Your task to perform on an android device: Open wifi settings Image 0: 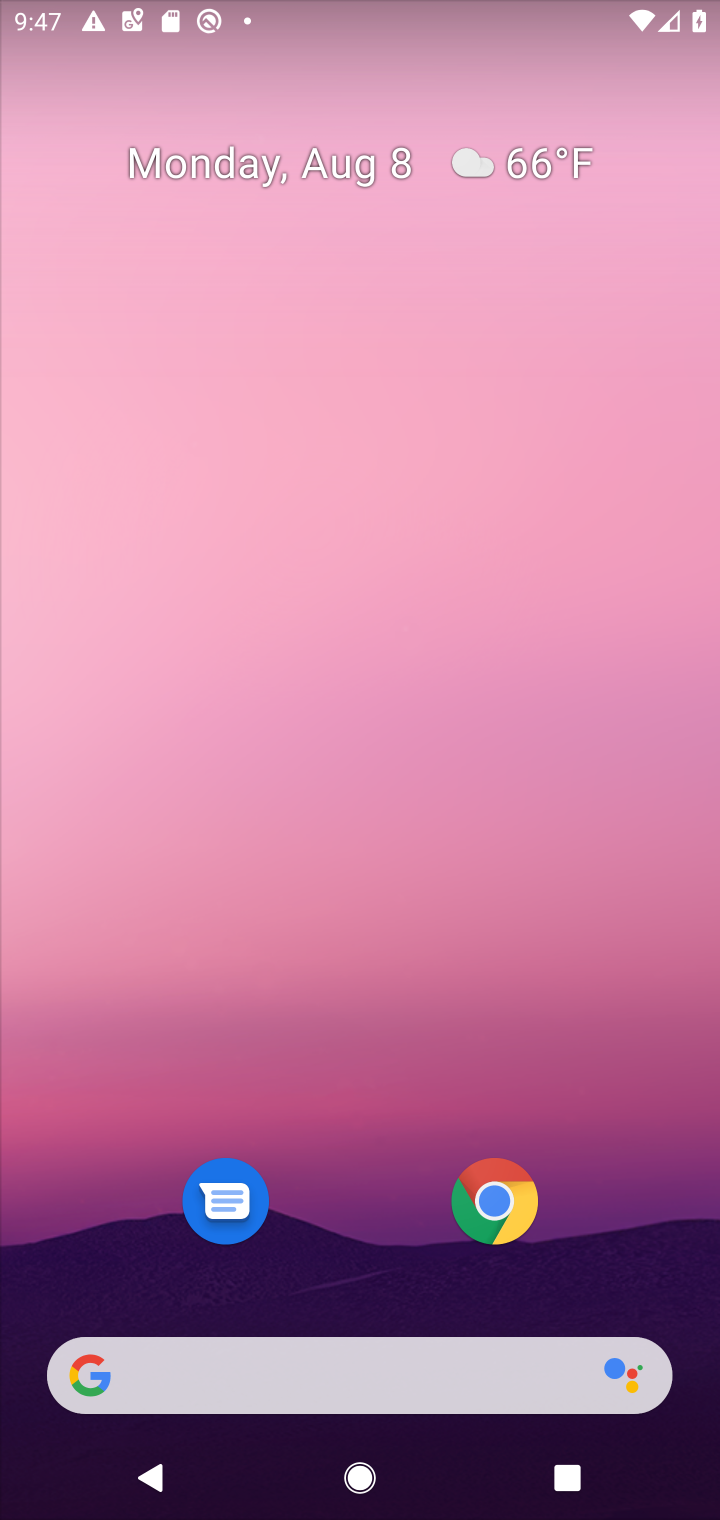
Step 0: press home button
Your task to perform on an android device: Open wifi settings Image 1: 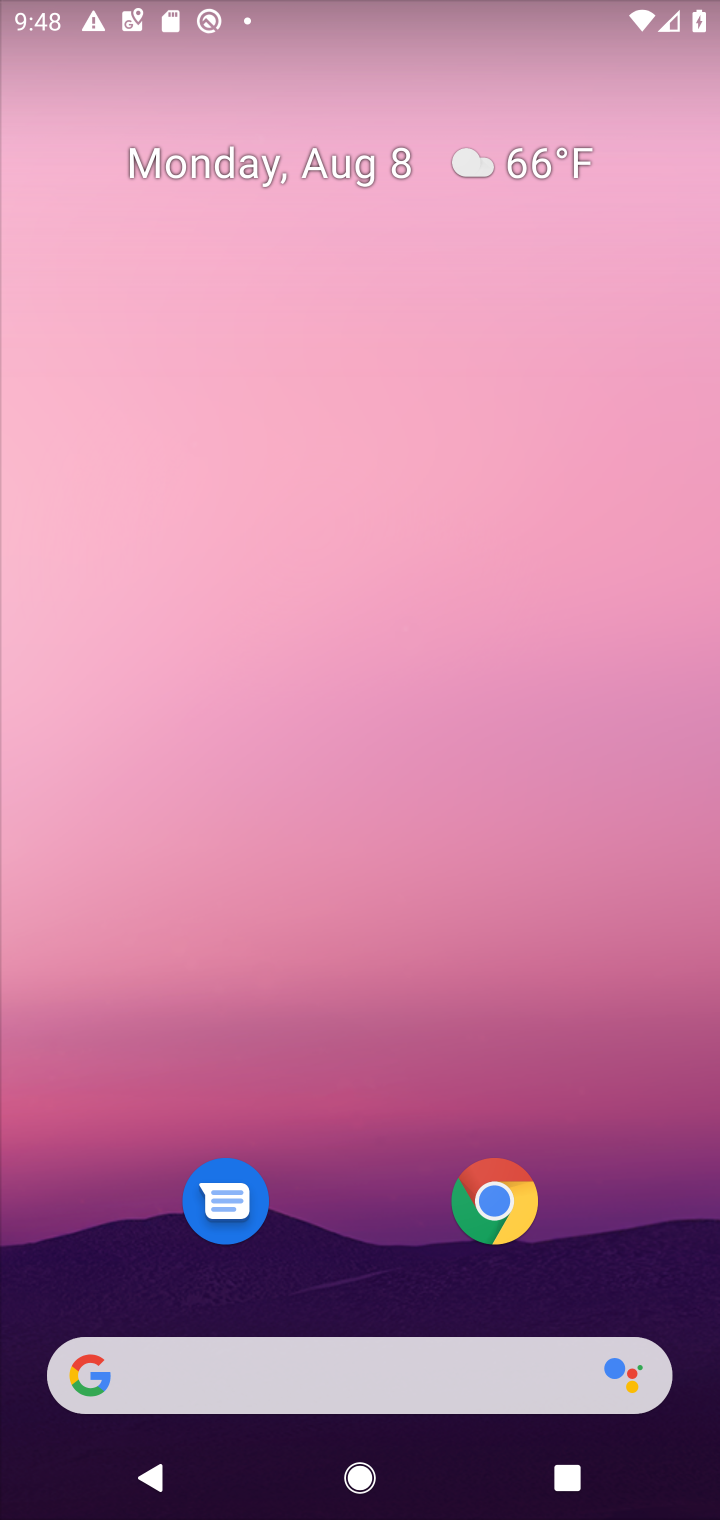
Step 1: drag from (366, 939) to (391, 279)
Your task to perform on an android device: Open wifi settings Image 2: 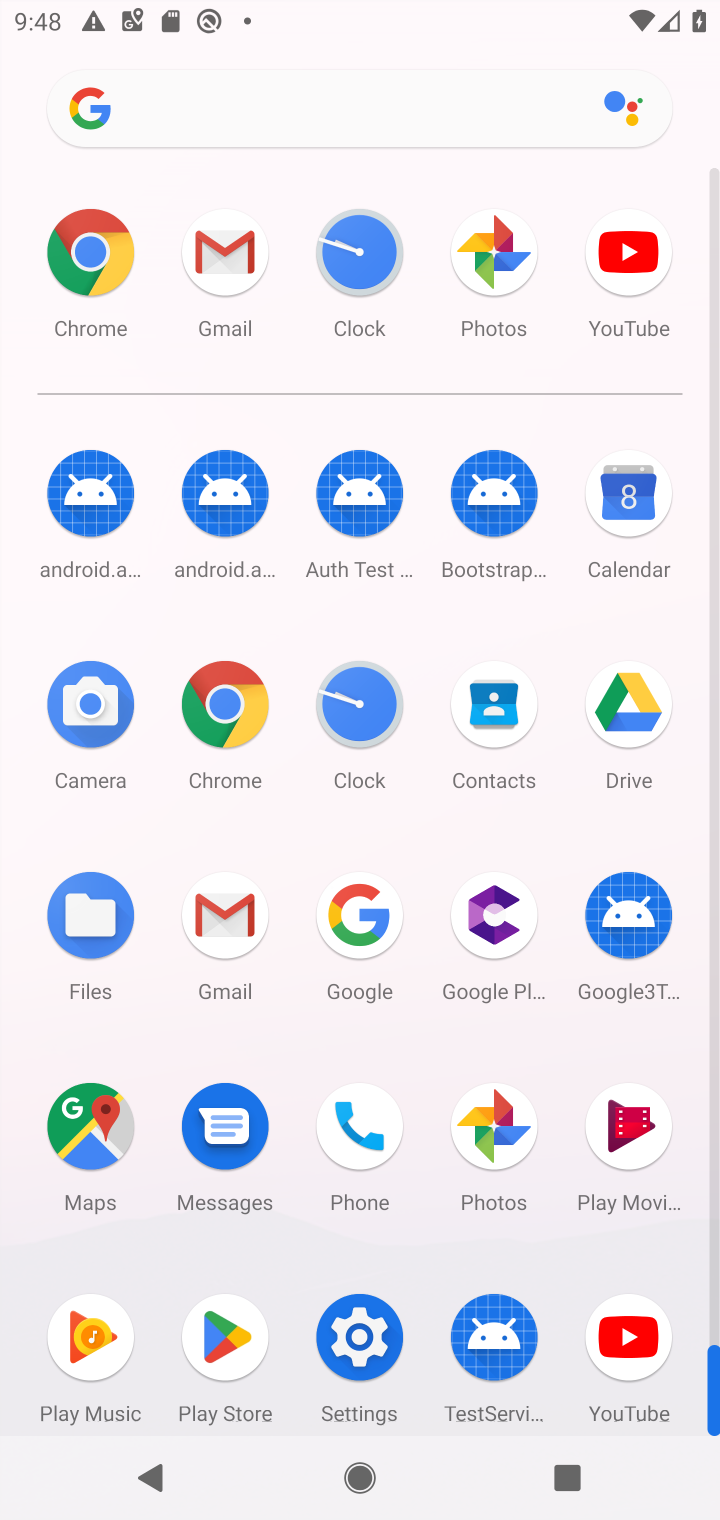
Step 2: click (367, 1347)
Your task to perform on an android device: Open wifi settings Image 3: 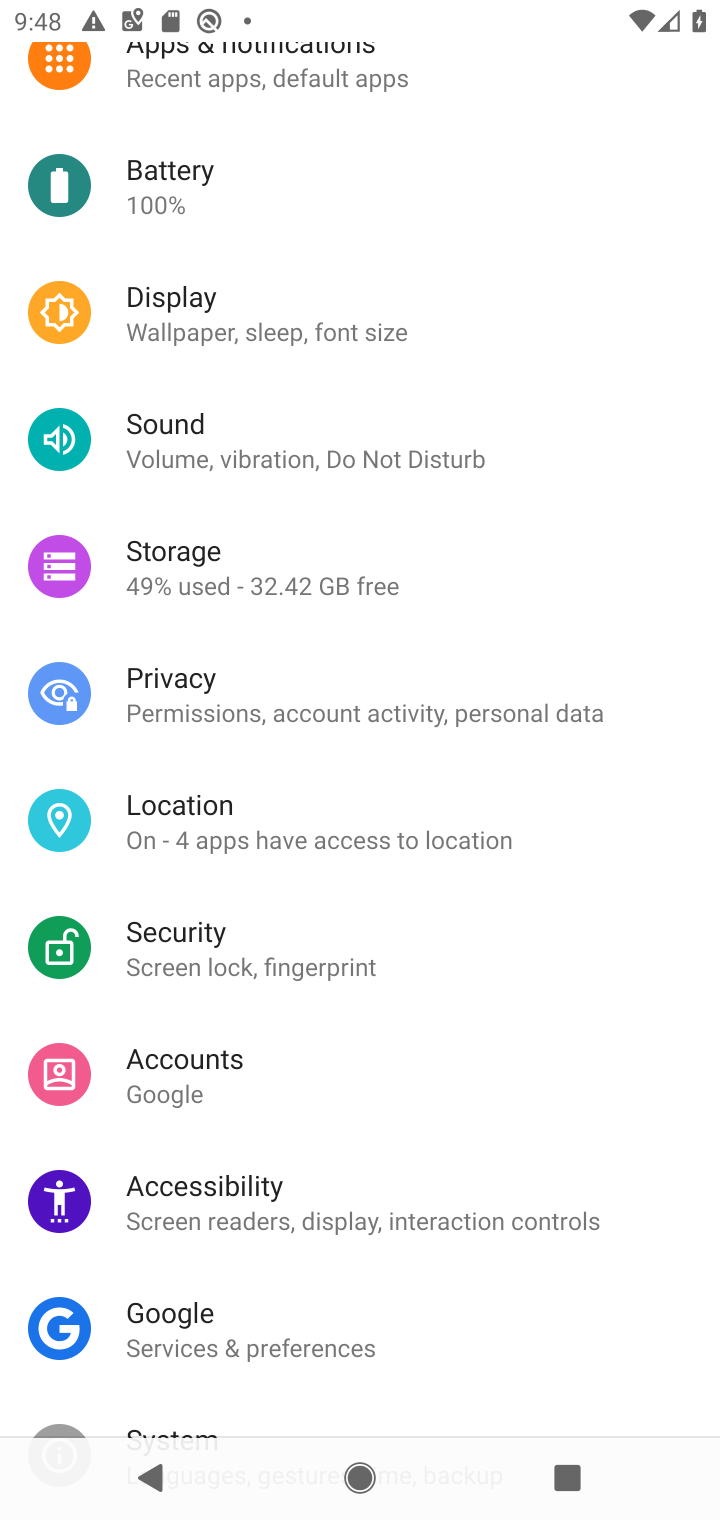
Step 3: drag from (647, 492) to (644, 761)
Your task to perform on an android device: Open wifi settings Image 4: 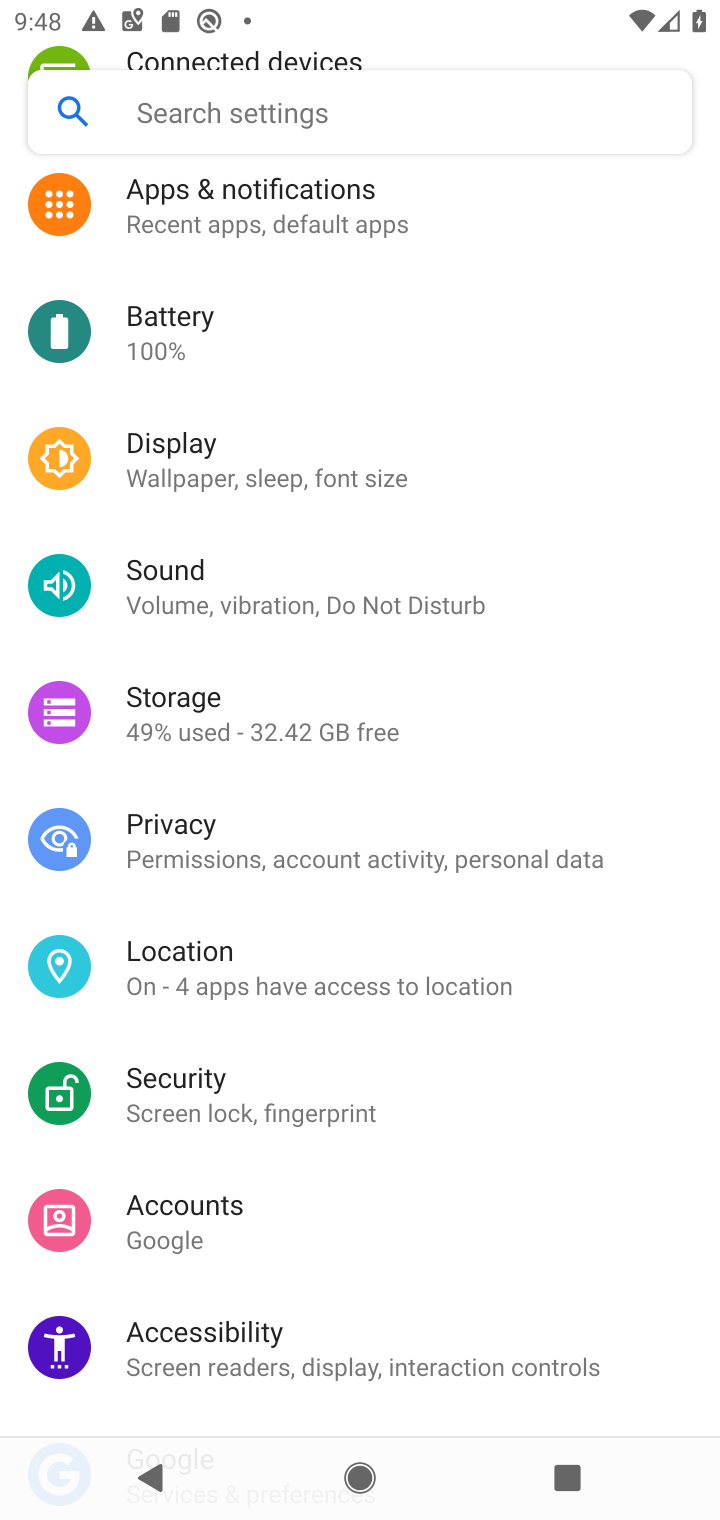
Step 4: drag from (673, 498) to (673, 707)
Your task to perform on an android device: Open wifi settings Image 5: 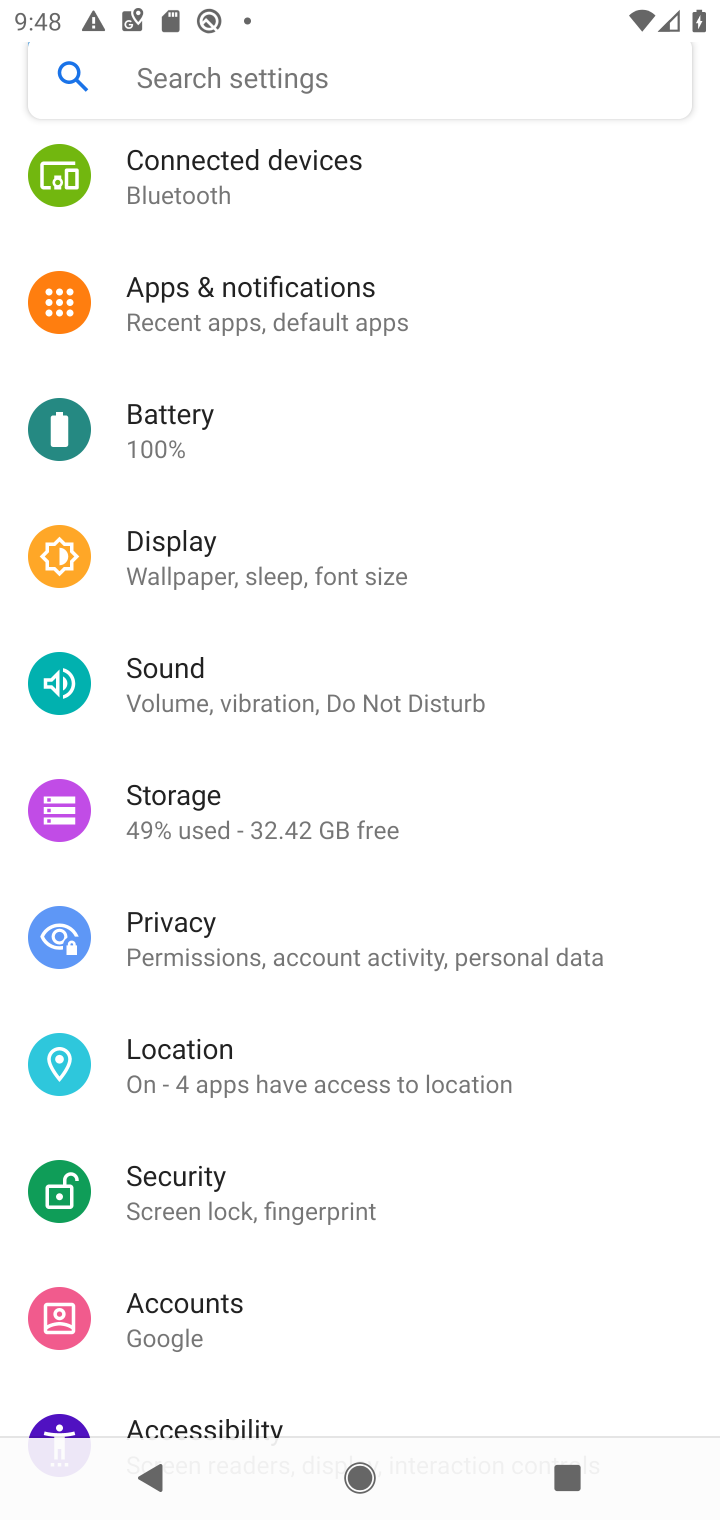
Step 5: drag from (671, 570) to (622, 846)
Your task to perform on an android device: Open wifi settings Image 6: 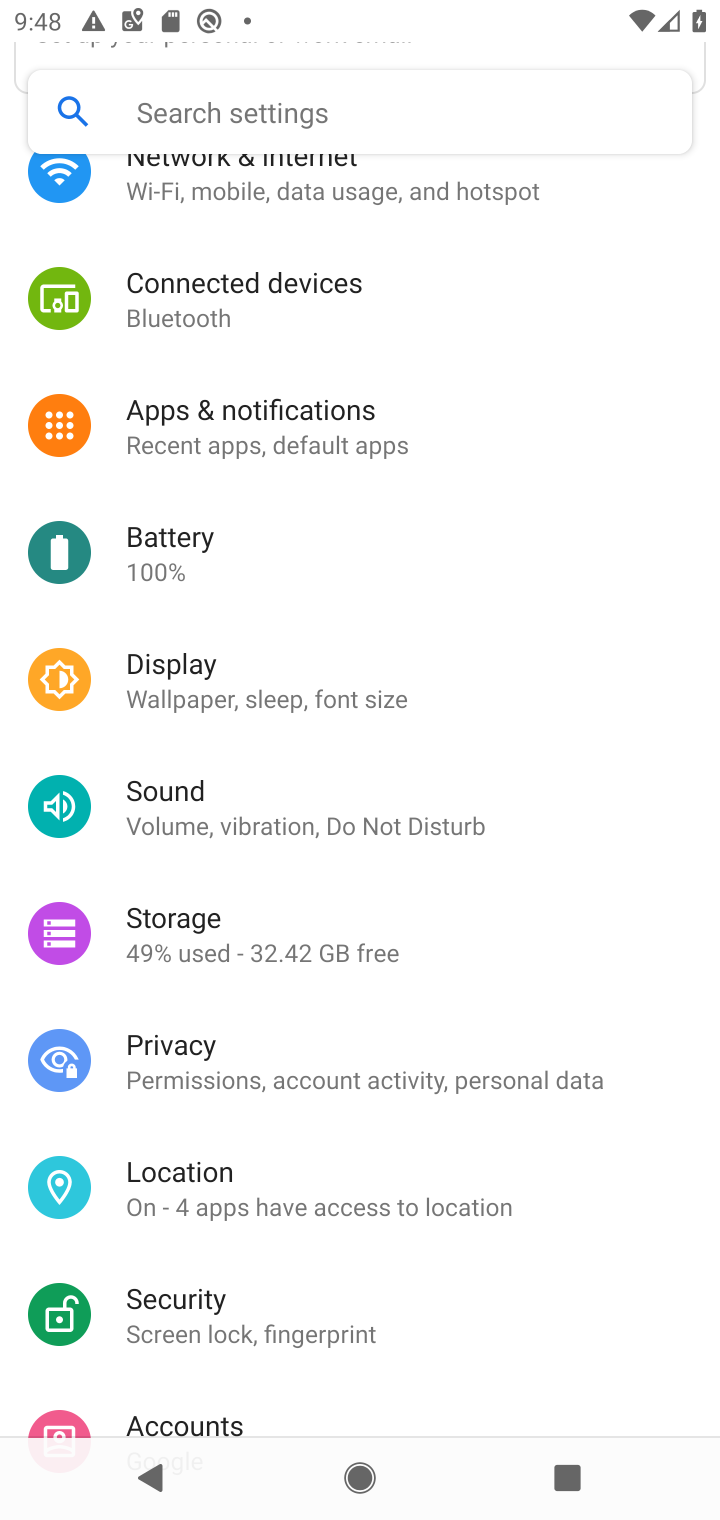
Step 6: drag from (611, 555) to (615, 831)
Your task to perform on an android device: Open wifi settings Image 7: 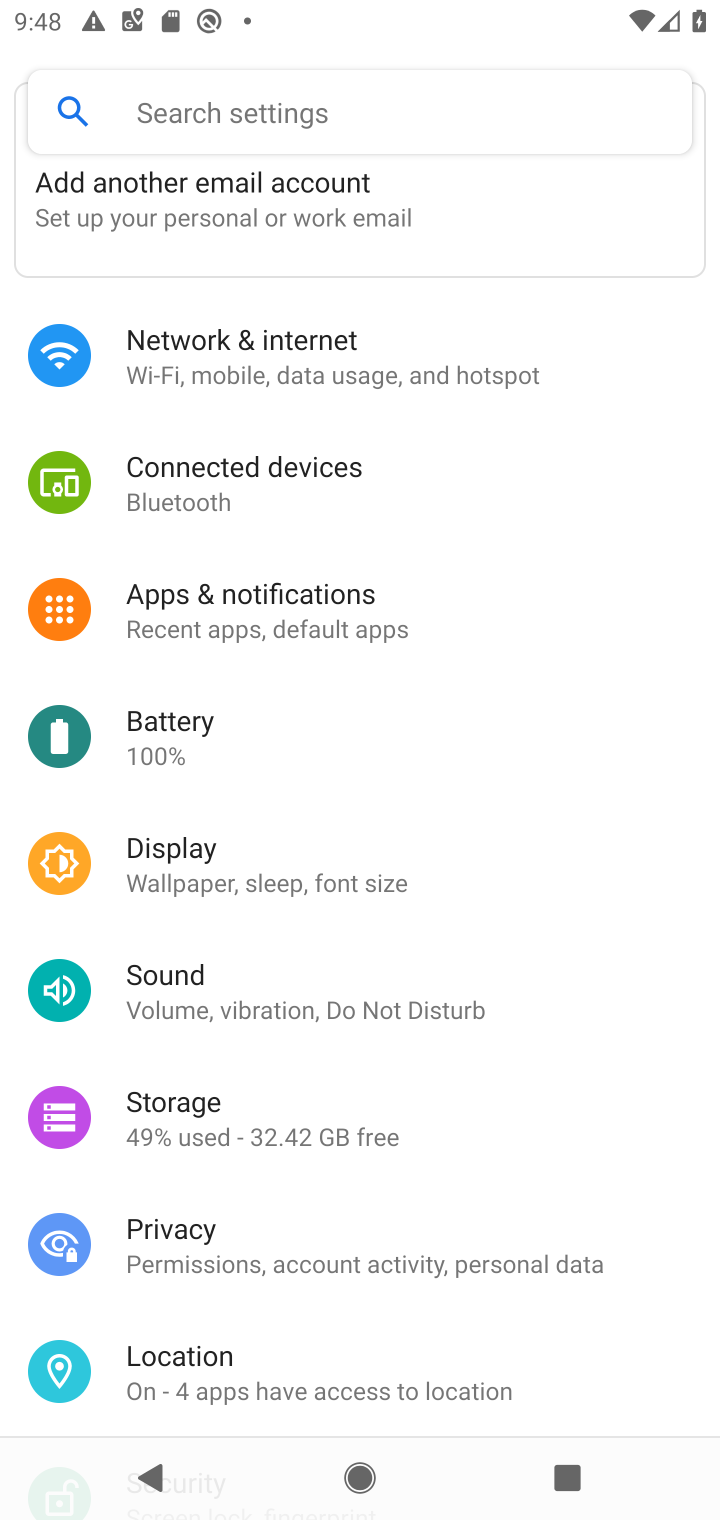
Step 7: click (317, 347)
Your task to perform on an android device: Open wifi settings Image 8: 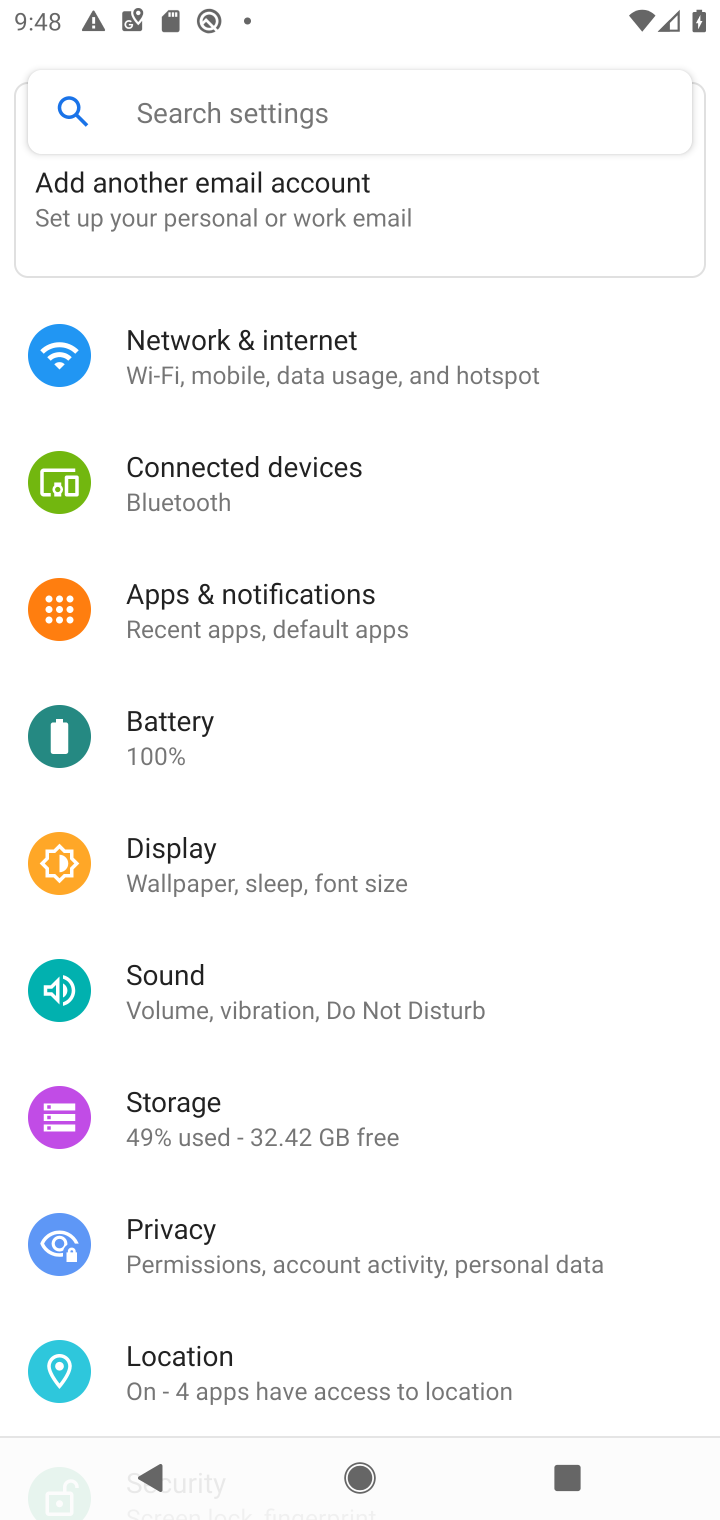
Step 8: click (341, 355)
Your task to perform on an android device: Open wifi settings Image 9: 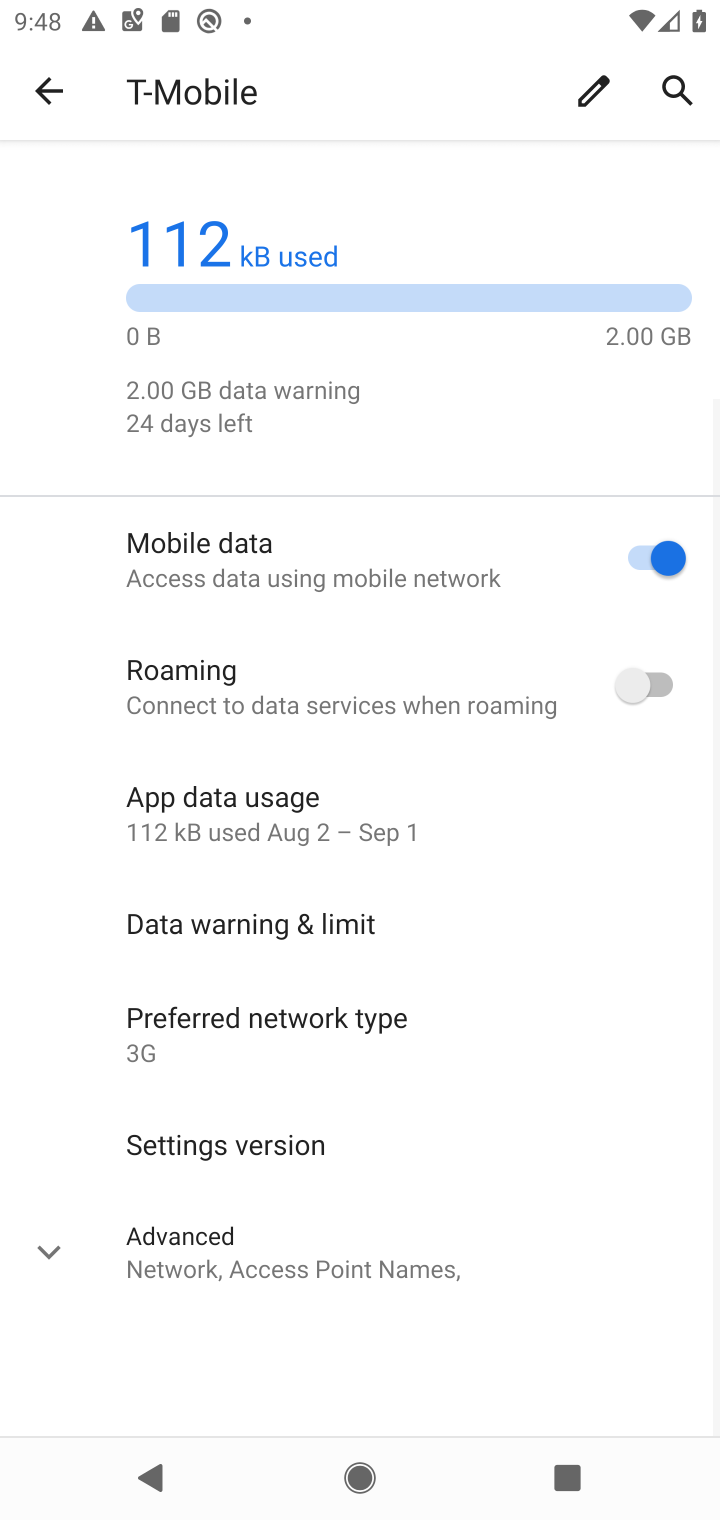
Step 9: click (215, 209)
Your task to perform on an android device: Open wifi settings Image 10: 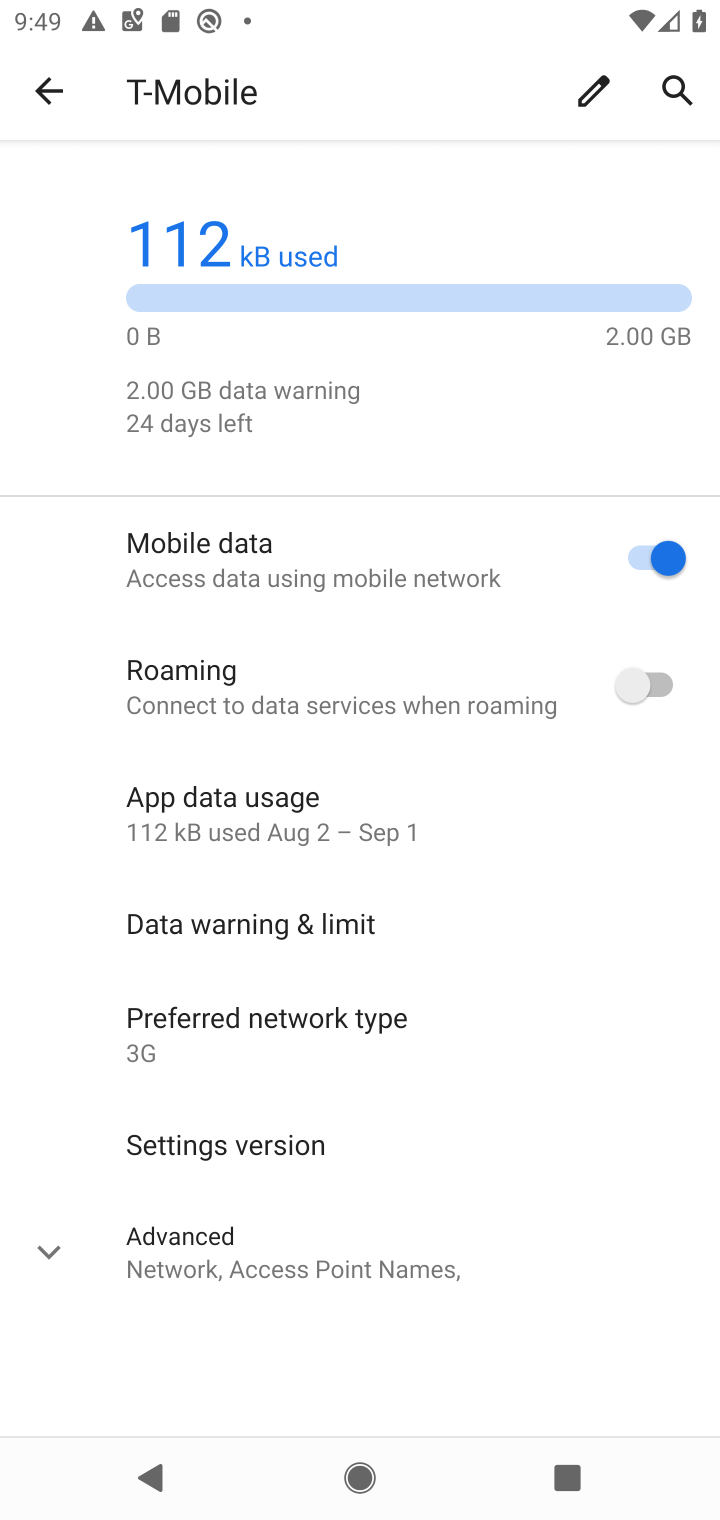
Step 10: task complete